Your task to perform on an android device: Turn on the flashlight Image 0: 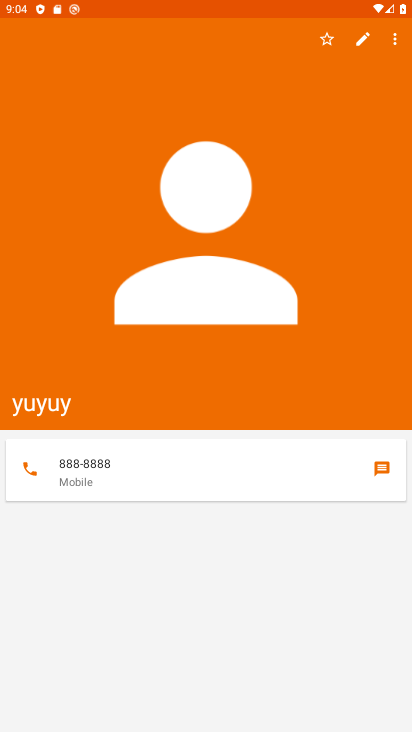
Step 0: press home button
Your task to perform on an android device: Turn on the flashlight Image 1: 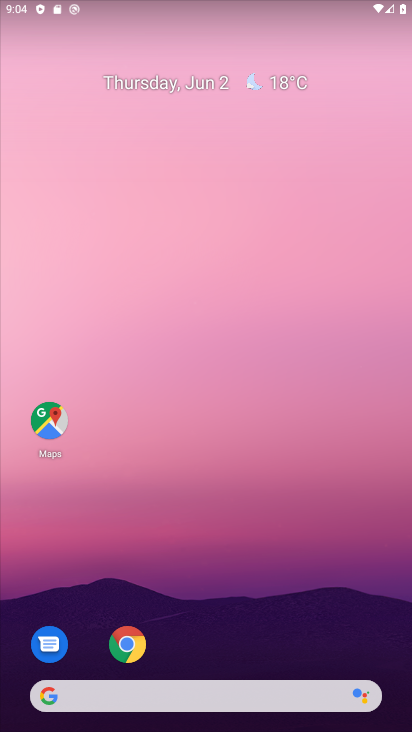
Step 1: task complete